Your task to perform on an android device: Show me productivity apps on the Play Store Image 0: 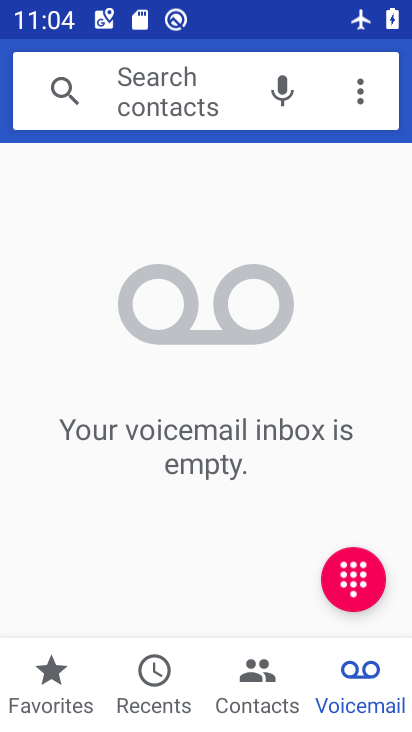
Step 0: press home button
Your task to perform on an android device: Show me productivity apps on the Play Store Image 1: 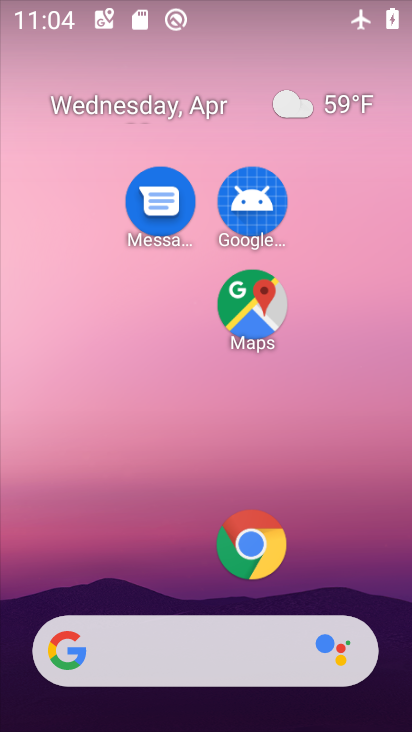
Step 1: drag from (194, 576) to (189, 122)
Your task to perform on an android device: Show me productivity apps on the Play Store Image 2: 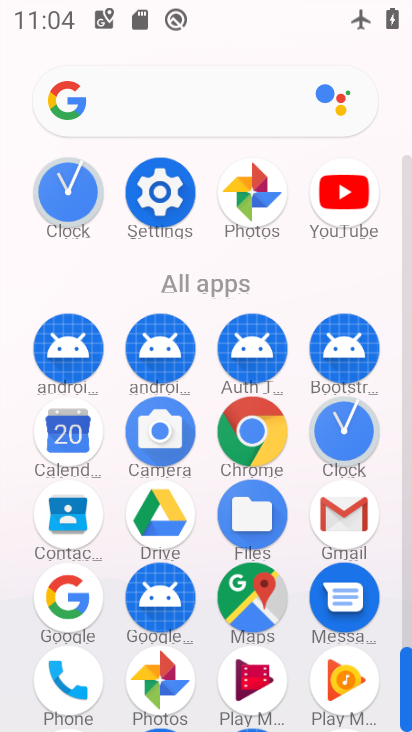
Step 2: drag from (211, 443) to (233, 144)
Your task to perform on an android device: Show me productivity apps on the Play Store Image 3: 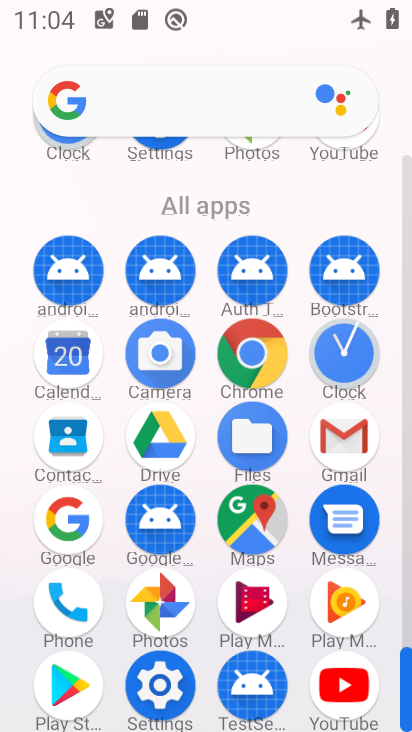
Step 3: click (69, 677)
Your task to perform on an android device: Show me productivity apps on the Play Store Image 4: 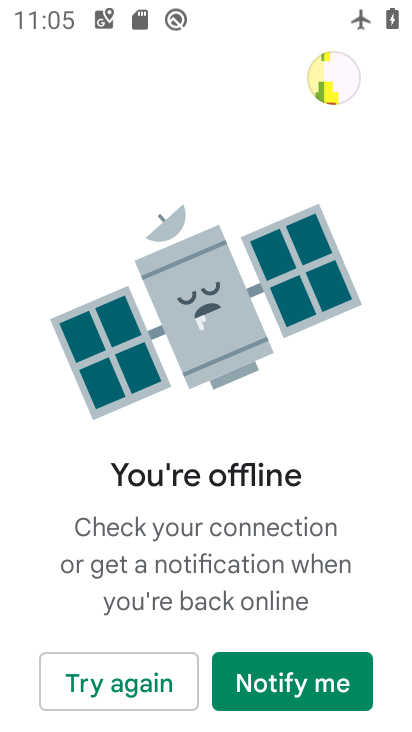
Step 4: task complete